Your task to perform on an android device: Search for the best rated phone case for the iPhone 8. Image 0: 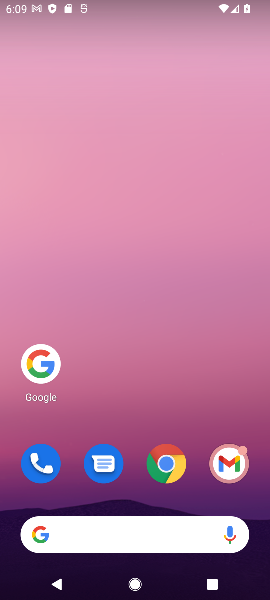
Step 0: click (48, 362)
Your task to perform on an android device: Search for the best rated phone case for the iPhone 8. Image 1: 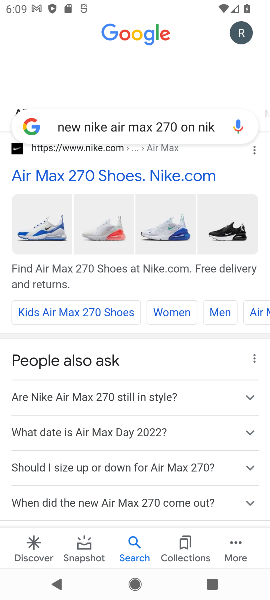
Step 1: click (153, 119)
Your task to perform on an android device: Search for the best rated phone case for the iPhone 8. Image 2: 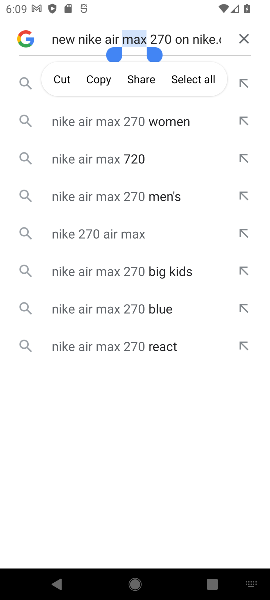
Step 2: click (243, 35)
Your task to perform on an android device: Search for the best rated phone case for the iPhone 8. Image 3: 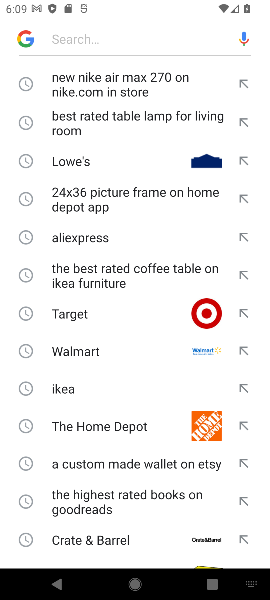
Step 3: click (113, 28)
Your task to perform on an android device: Search for the best rated phone case for the iPhone 8. Image 4: 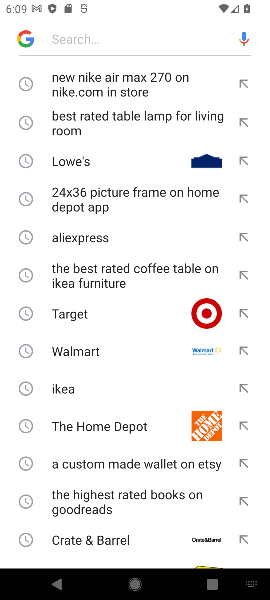
Step 4: type "best rated phone case for the iPhone 8 "
Your task to perform on an android device: Search for the best rated phone case for the iPhone 8. Image 5: 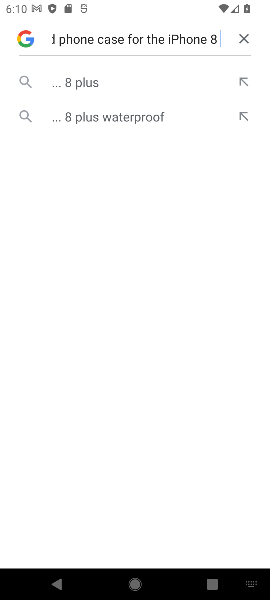
Step 5: click (79, 83)
Your task to perform on an android device: Search for the best rated phone case for the iPhone 8. Image 6: 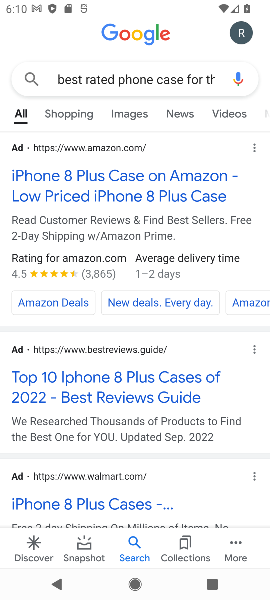
Step 6: click (58, 180)
Your task to perform on an android device: Search for the best rated phone case for the iPhone 8. Image 7: 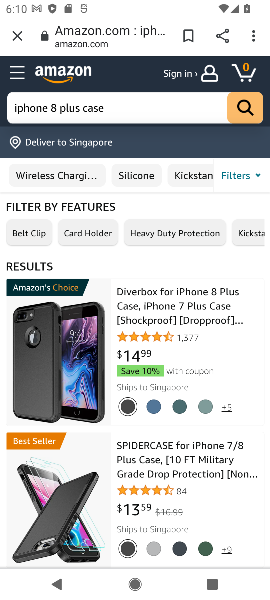
Step 7: drag from (182, 506) to (250, 208)
Your task to perform on an android device: Search for the best rated phone case for the iPhone 8. Image 8: 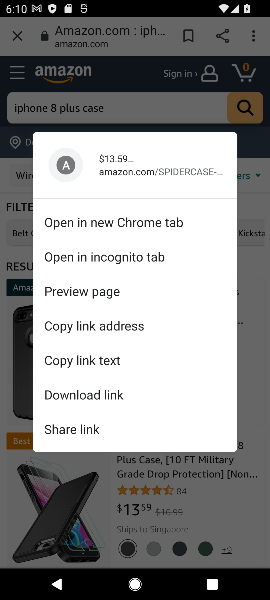
Step 8: click (258, 381)
Your task to perform on an android device: Search for the best rated phone case for the iPhone 8. Image 9: 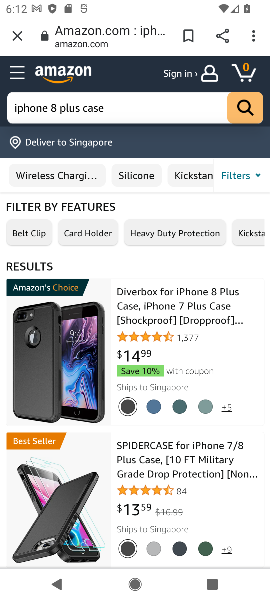
Step 9: task complete